Your task to perform on an android device: Turn off the flashlight Image 0: 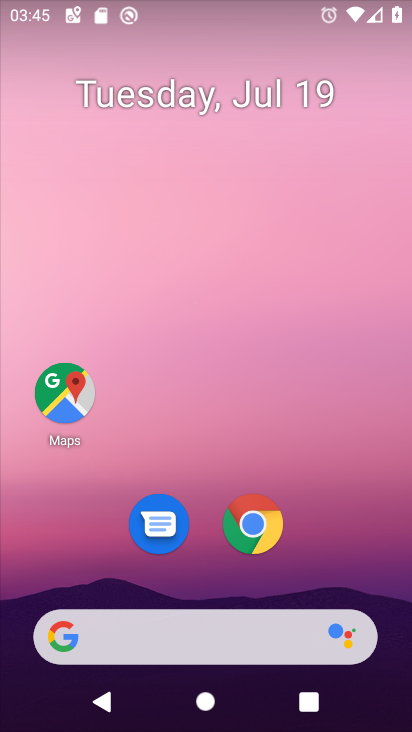
Step 0: drag from (228, 434) to (272, 17)
Your task to perform on an android device: Turn off the flashlight Image 1: 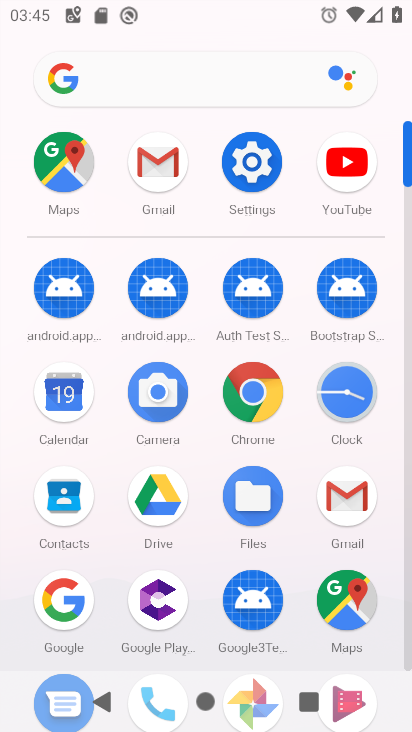
Step 1: click (255, 147)
Your task to perform on an android device: Turn off the flashlight Image 2: 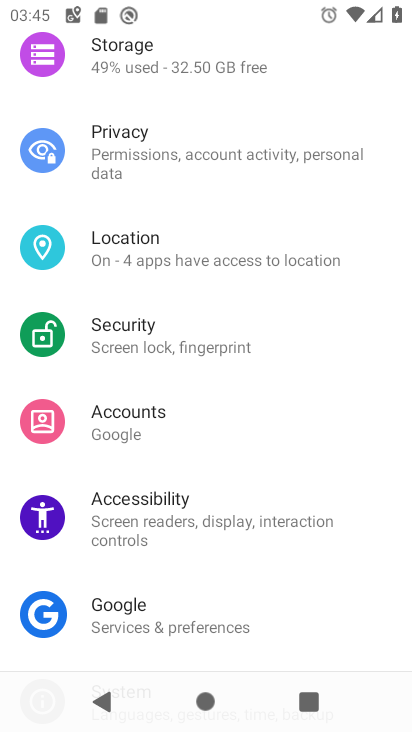
Step 2: drag from (232, 291) to (240, 712)
Your task to perform on an android device: Turn off the flashlight Image 3: 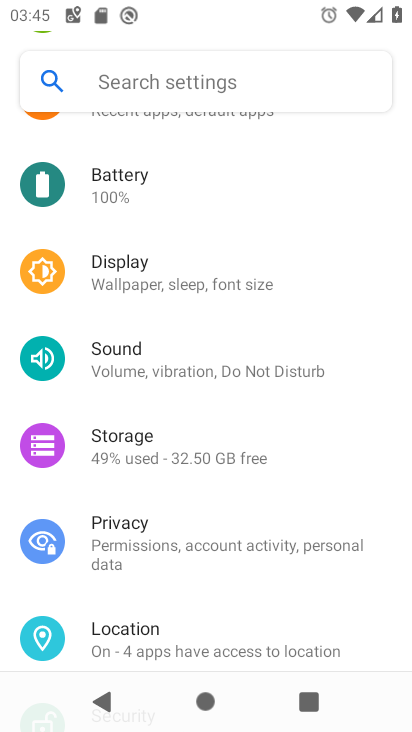
Step 3: drag from (239, 241) to (239, 620)
Your task to perform on an android device: Turn off the flashlight Image 4: 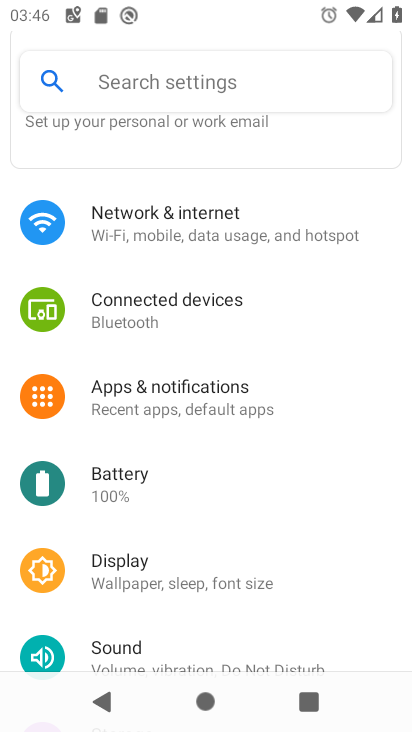
Step 4: drag from (237, 245) to (259, 571)
Your task to perform on an android device: Turn off the flashlight Image 5: 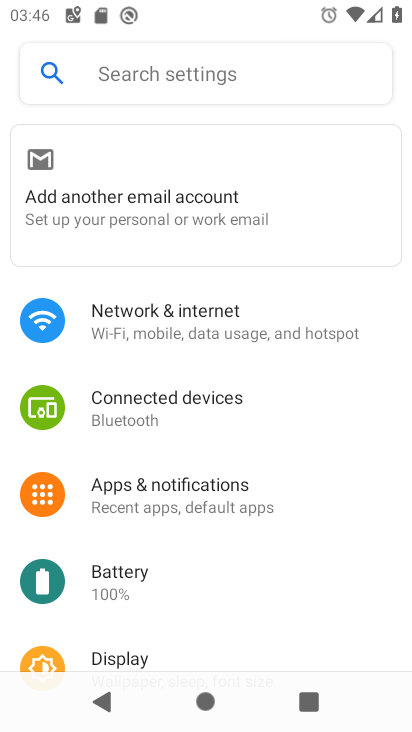
Step 5: click (312, 70)
Your task to perform on an android device: Turn off the flashlight Image 6: 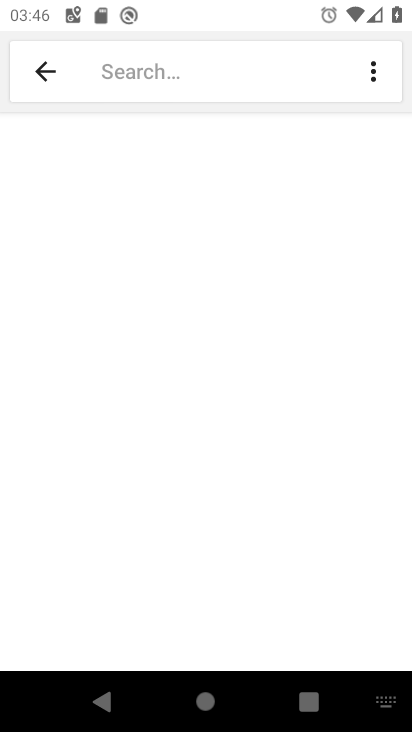
Step 6: type "Flashlight"
Your task to perform on an android device: Turn off the flashlight Image 7: 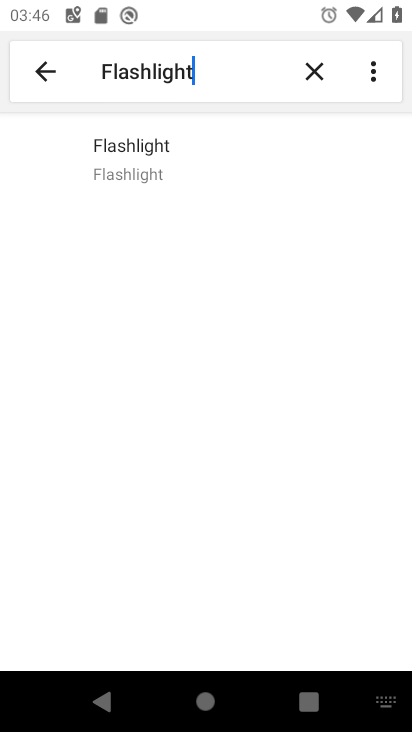
Step 7: click (132, 158)
Your task to perform on an android device: Turn off the flashlight Image 8: 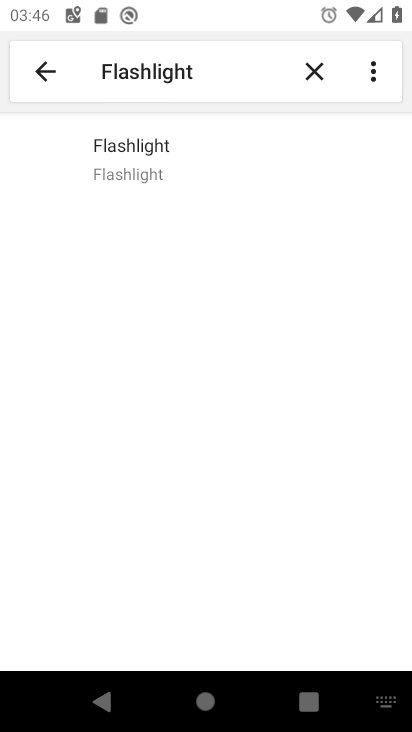
Step 8: click (156, 152)
Your task to perform on an android device: Turn off the flashlight Image 9: 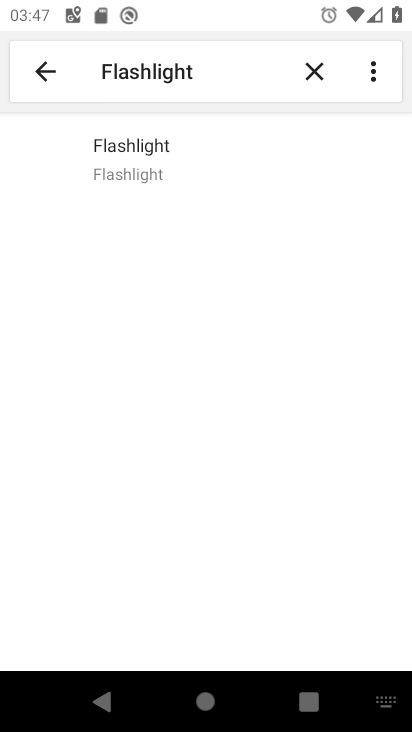
Step 9: task complete